Your task to perform on an android device: Open the phone app and click the voicemail tab. Image 0: 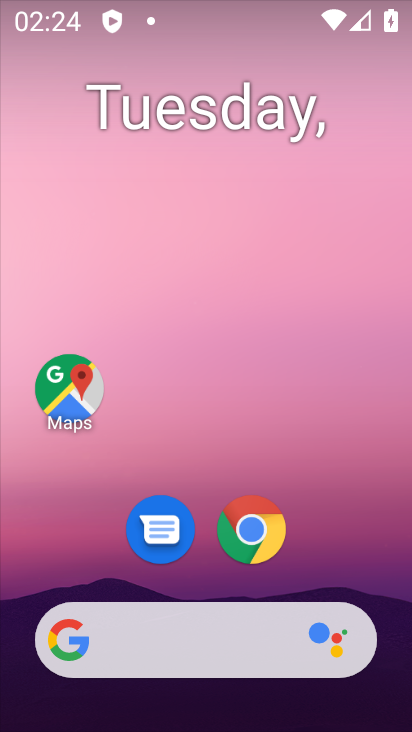
Step 0: drag from (206, 575) to (245, 55)
Your task to perform on an android device: Open the phone app and click the voicemail tab. Image 1: 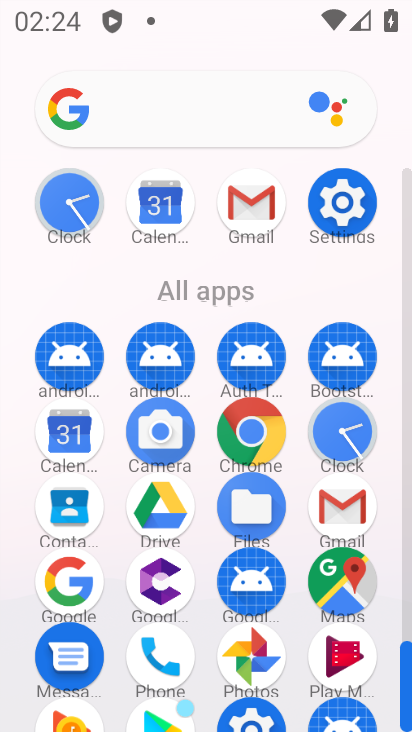
Step 1: click (156, 658)
Your task to perform on an android device: Open the phone app and click the voicemail tab. Image 2: 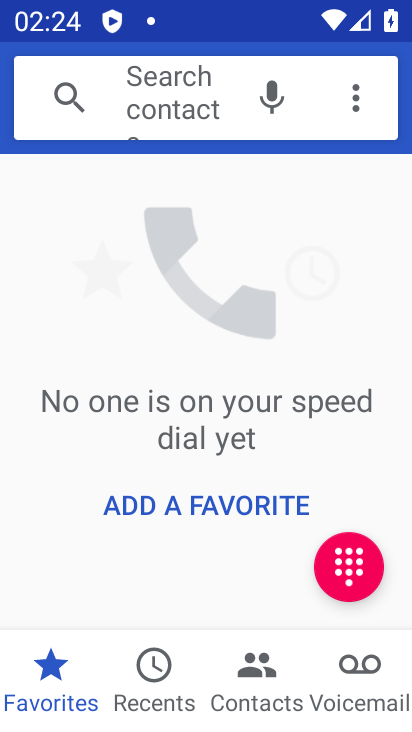
Step 2: click (357, 681)
Your task to perform on an android device: Open the phone app and click the voicemail tab. Image 3: 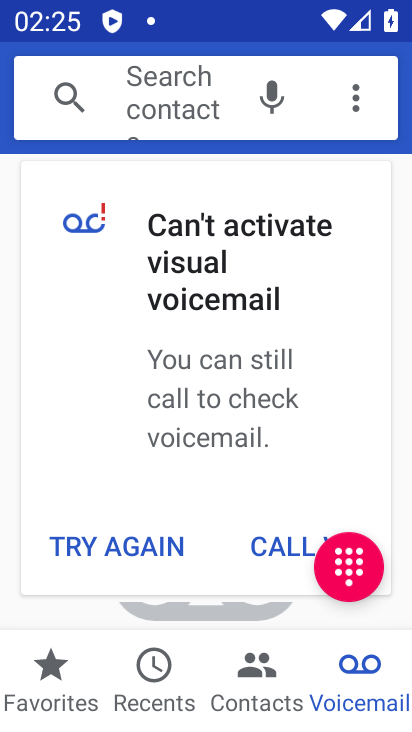
Step 3: task complete